Your task to perform on an android device: Open calendar and show me the first week of next month Image 0: 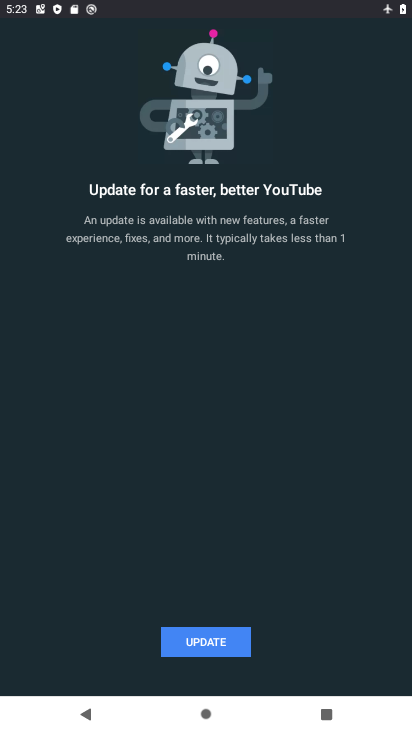
Step 0: drag from (194, 561) to (309, 82)
Your task to perform on an android device: Open calendar and show me the first week of next month Image 1: 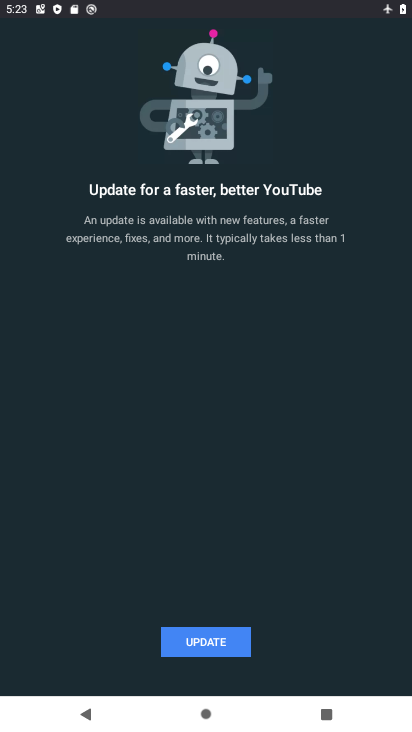
Step 1: press back button
Your task to perform on an android device: Open calendar and show me the first week of next month Image 2: 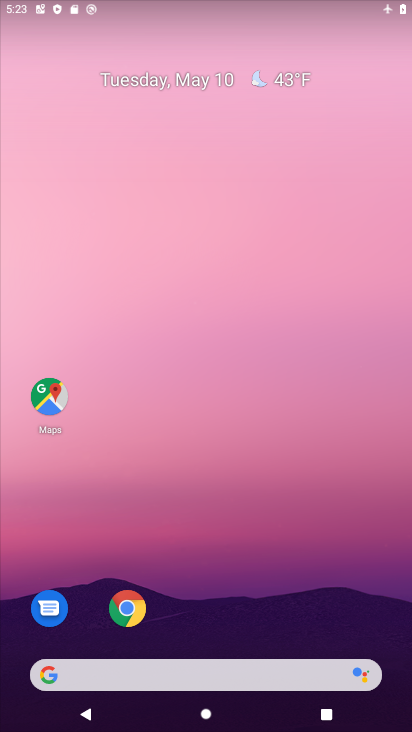
Step 2: drag from (248, 612) to (333, 3)
Your task to perform on an android device: Open calendar and show me the first week of next month Image 3: 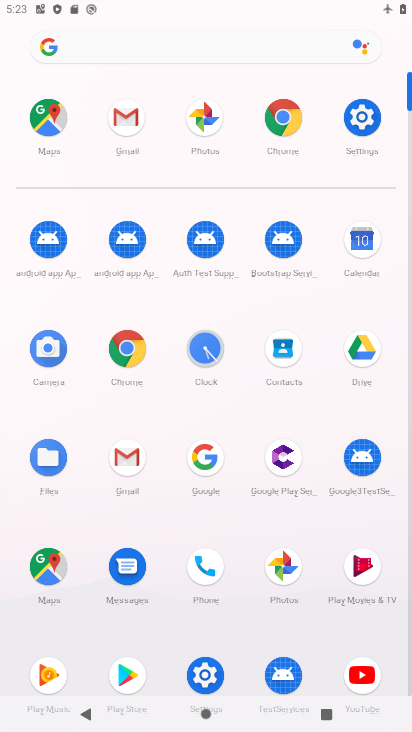
Step 3: click (362, 246)
Your task to perform on an android device: Open calendar and show me the first week of next month Image 4: 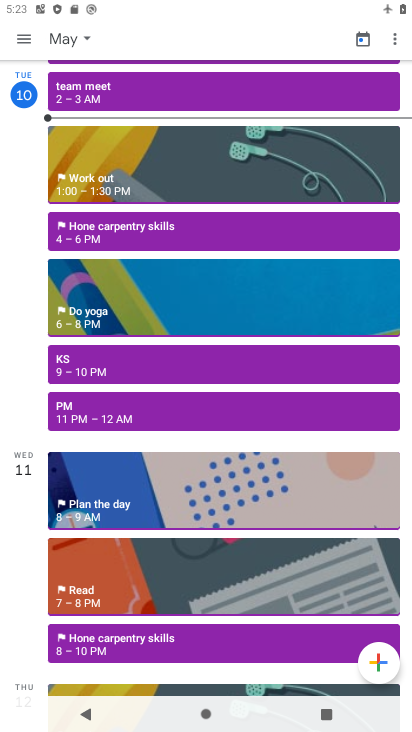
Step 4: click (81, 38)
Your task to perform on an android device: Open calendar and show me the first week of next month Image 5: 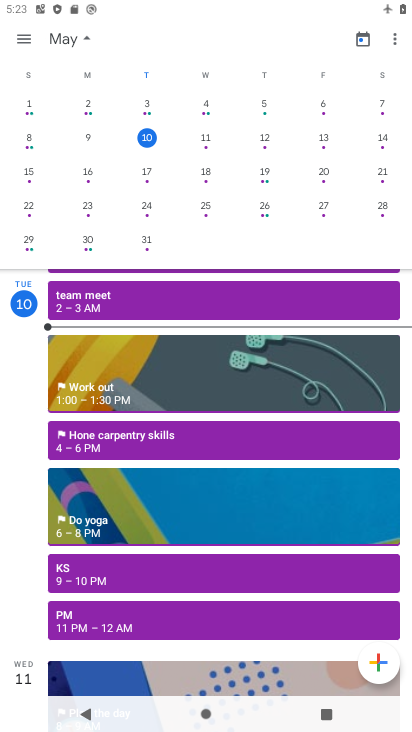
Step 5: drag from (370, 191) to (0, 175)
Your task to perform on an android device: Open calendar and show me the first week of next month Image 6: 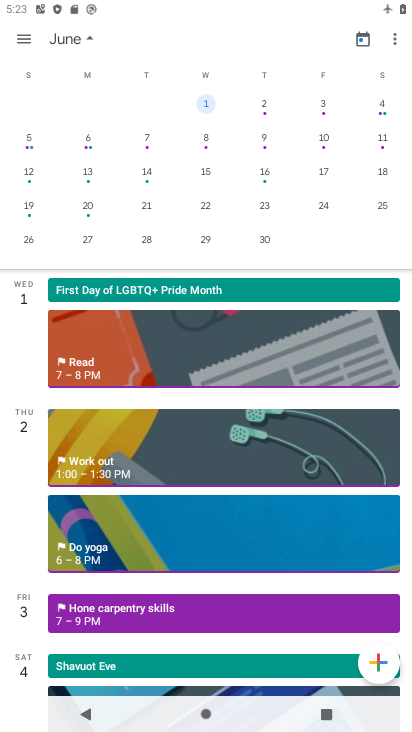
Step 6: click (203, 98)
Your task to perform on an android device: Open calendar and show me the first week of next month Image 7: 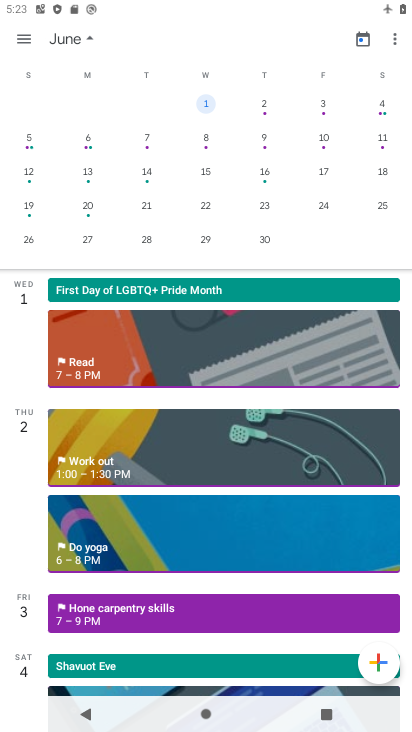
Step 7: task complete